Your task to perform on an android device: Open internet settings Image 0: 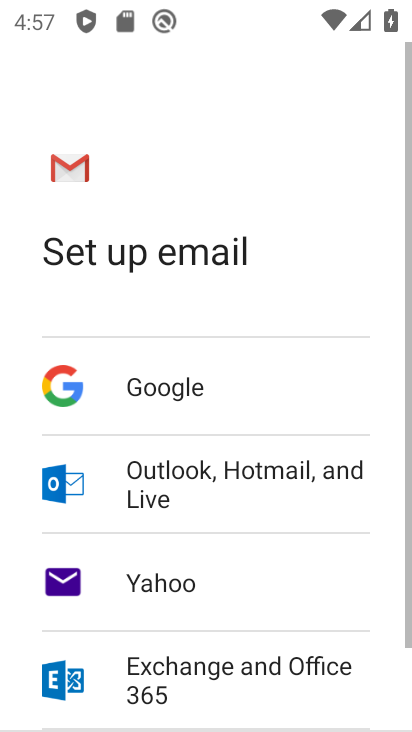
Step 0: press home button
Your task to perform on an android device: Open internet settings Image 1: 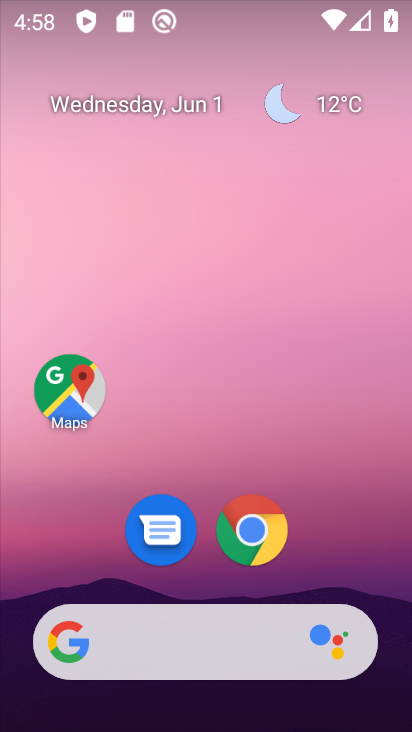
Step 1: drag from (284, 564) to (218, 117)
Your task to perform on an android device: Open internet settings Image 2: 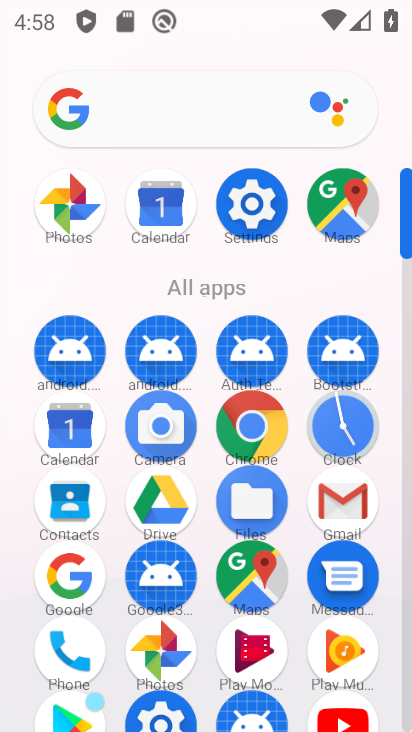
Step 2: click (263, 211)
Your task to perform on an android device: Open internet settings Image 3: 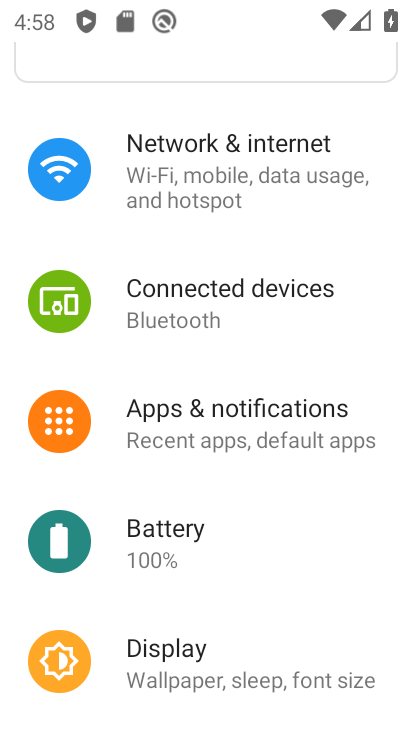
Step 3: click (223, 186)
Your task to perform on an android device: Open internet settings Image 4: 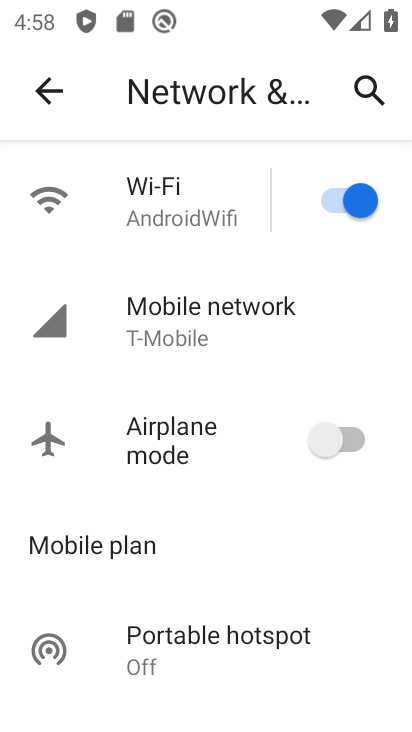
Step 4: click (191, 346)
Your task to perform on an android device: Open internet settings Image 5: 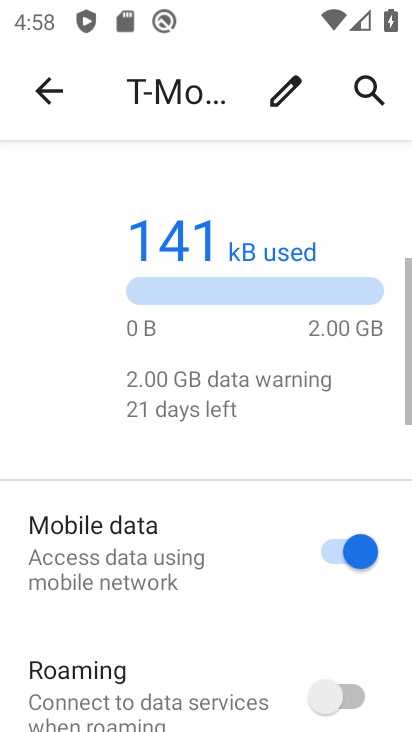
Step 5: task complete